Your task to perform on an android device: install app "Gmail" Image 0: 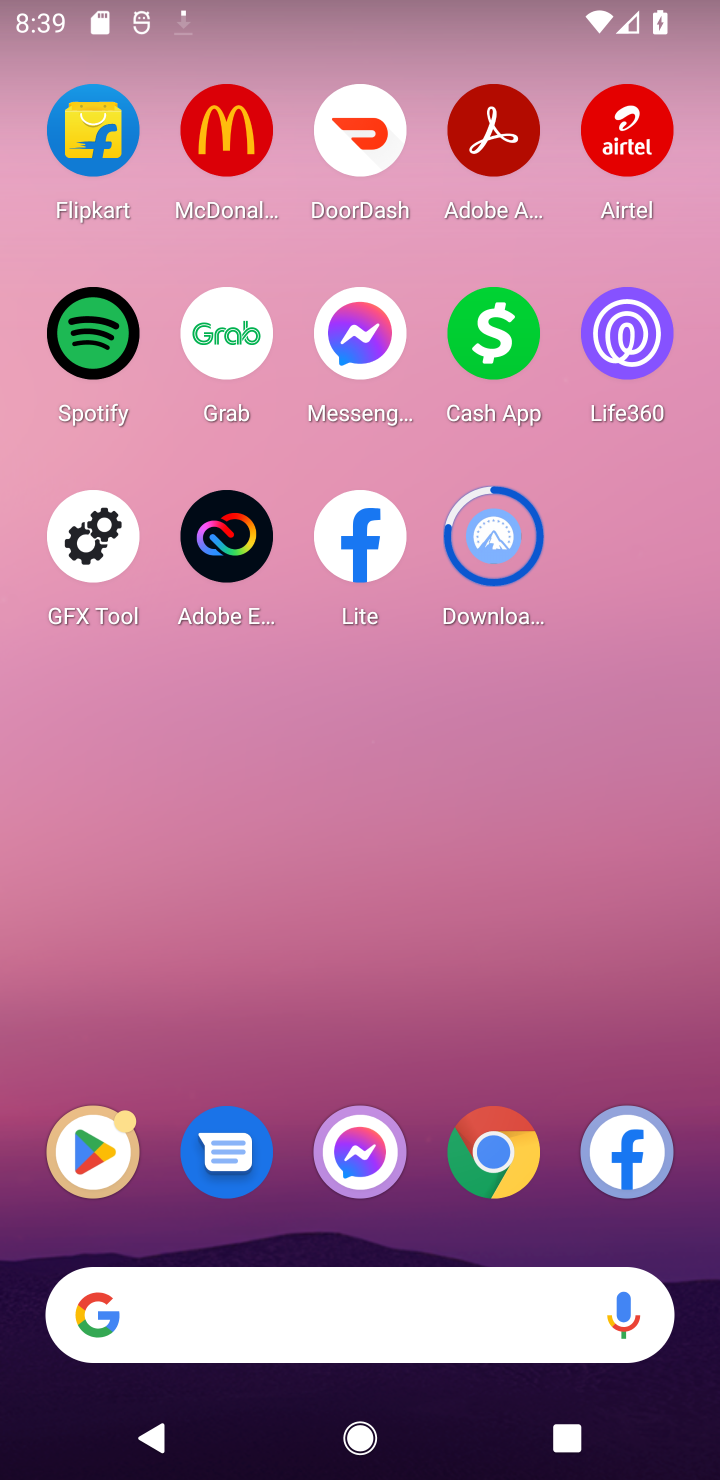
Step 0: click (96, 1157)
Your task to perform on an android device: install app "Gmail" Image 1: 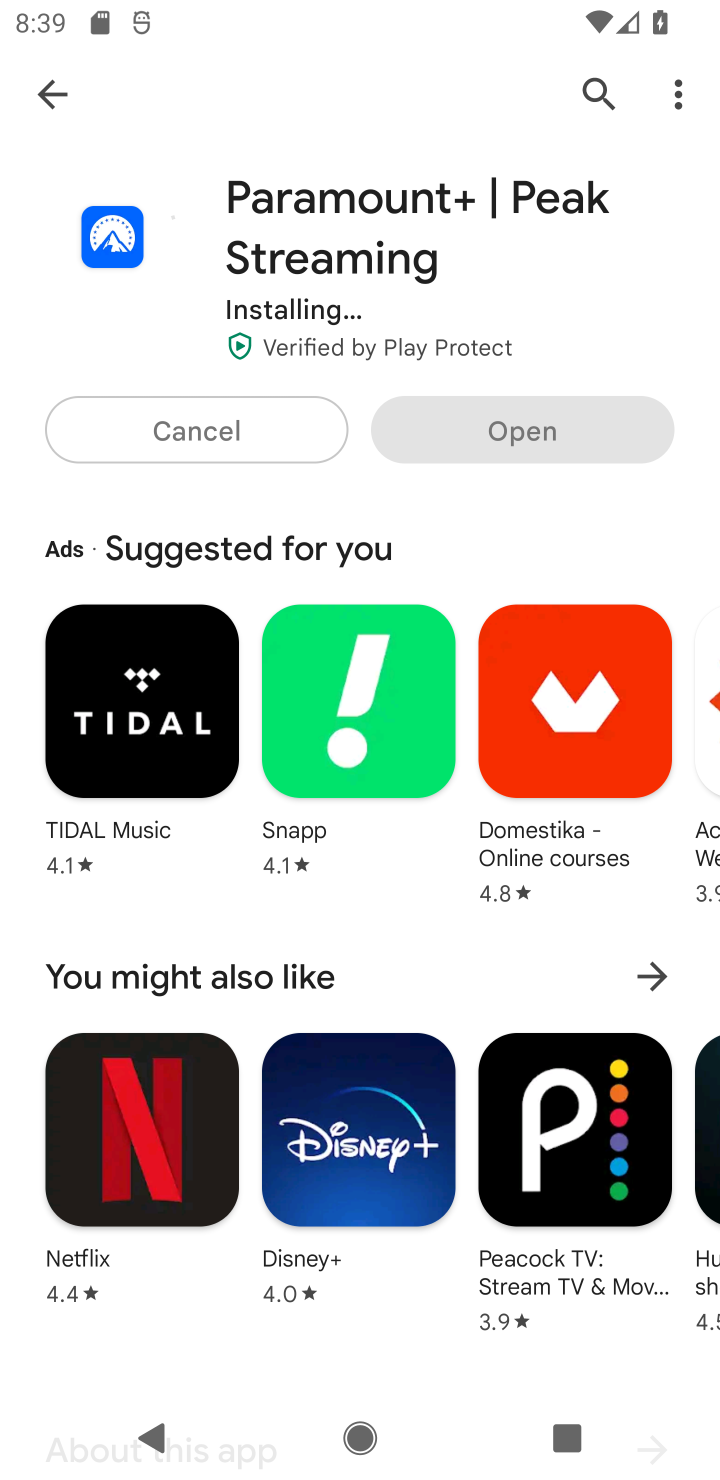
Step 1: click (242, 415)
Your task to perform on an android device: install app "Gmail" Image 2: 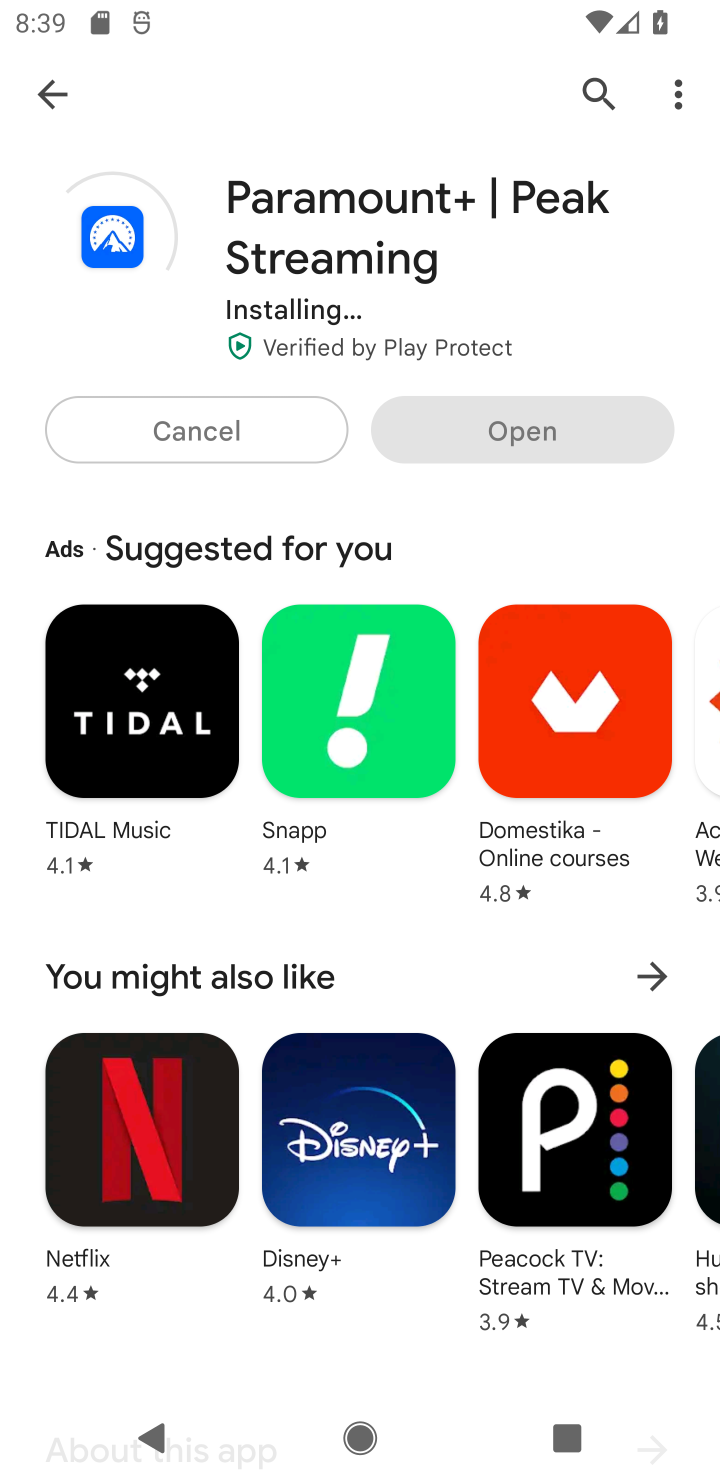
Step 2: click (53, 88)
Your task to perform on an android device: install app "Gmail" Image 3: 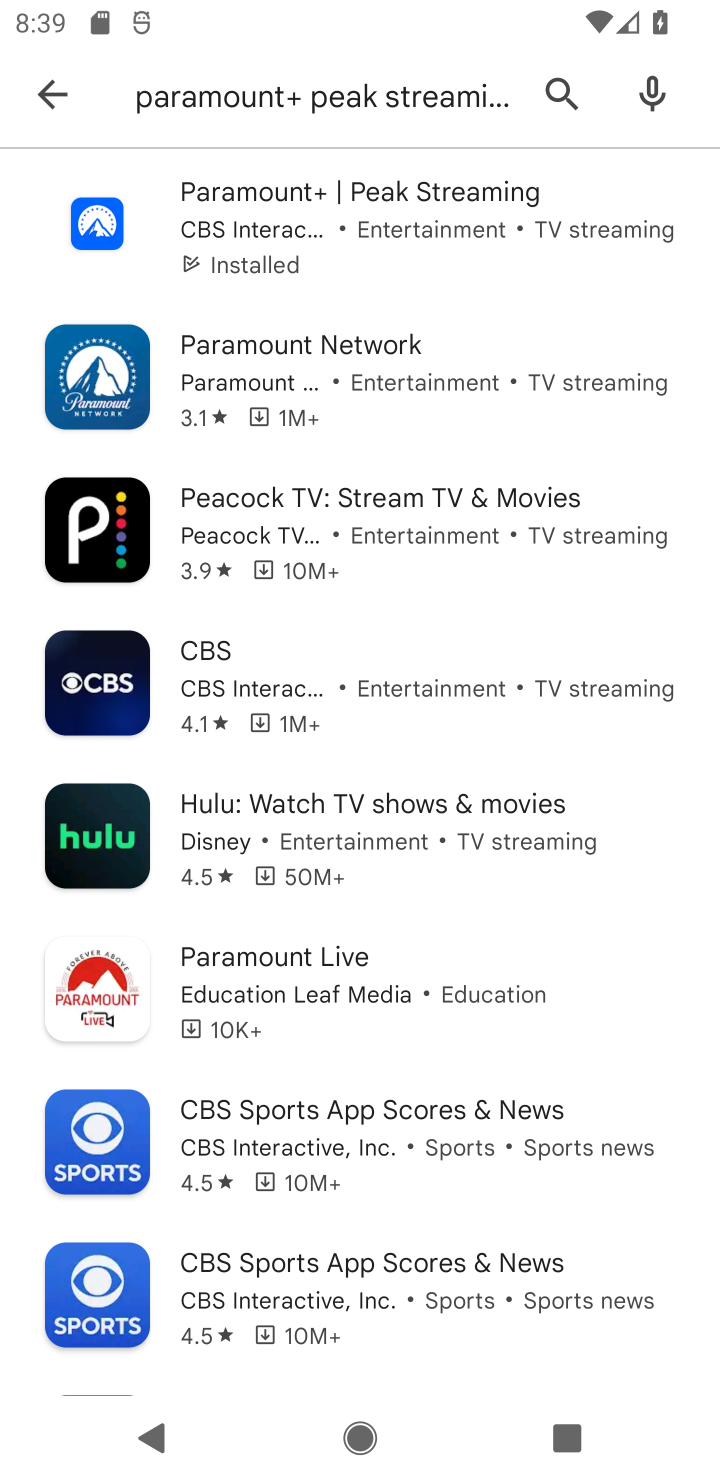
Step 3: click (53, 88)
Your task to perform on an android device: install app "Gmail" Image 4: 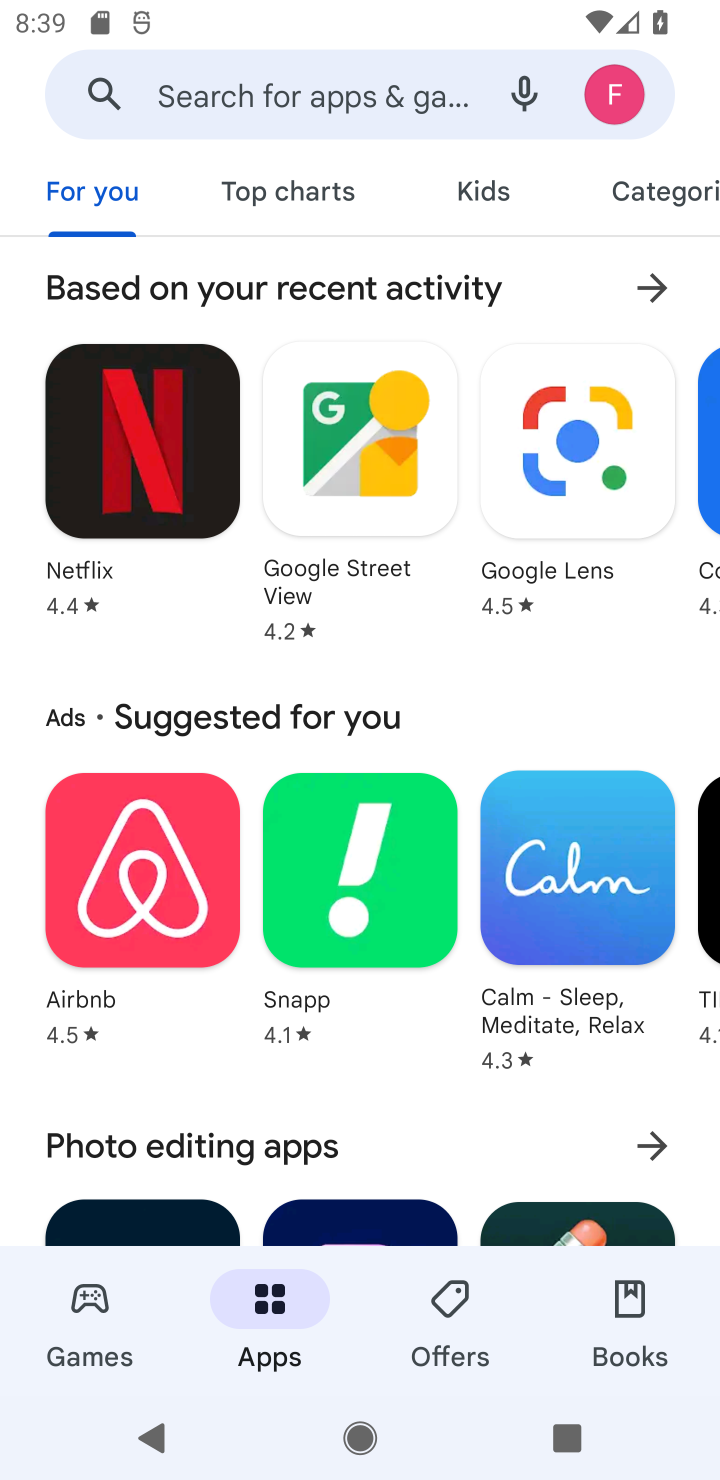
Step 4: click (223, 88)
Your task to perform on an android device: install app "Gmail" Image 5: 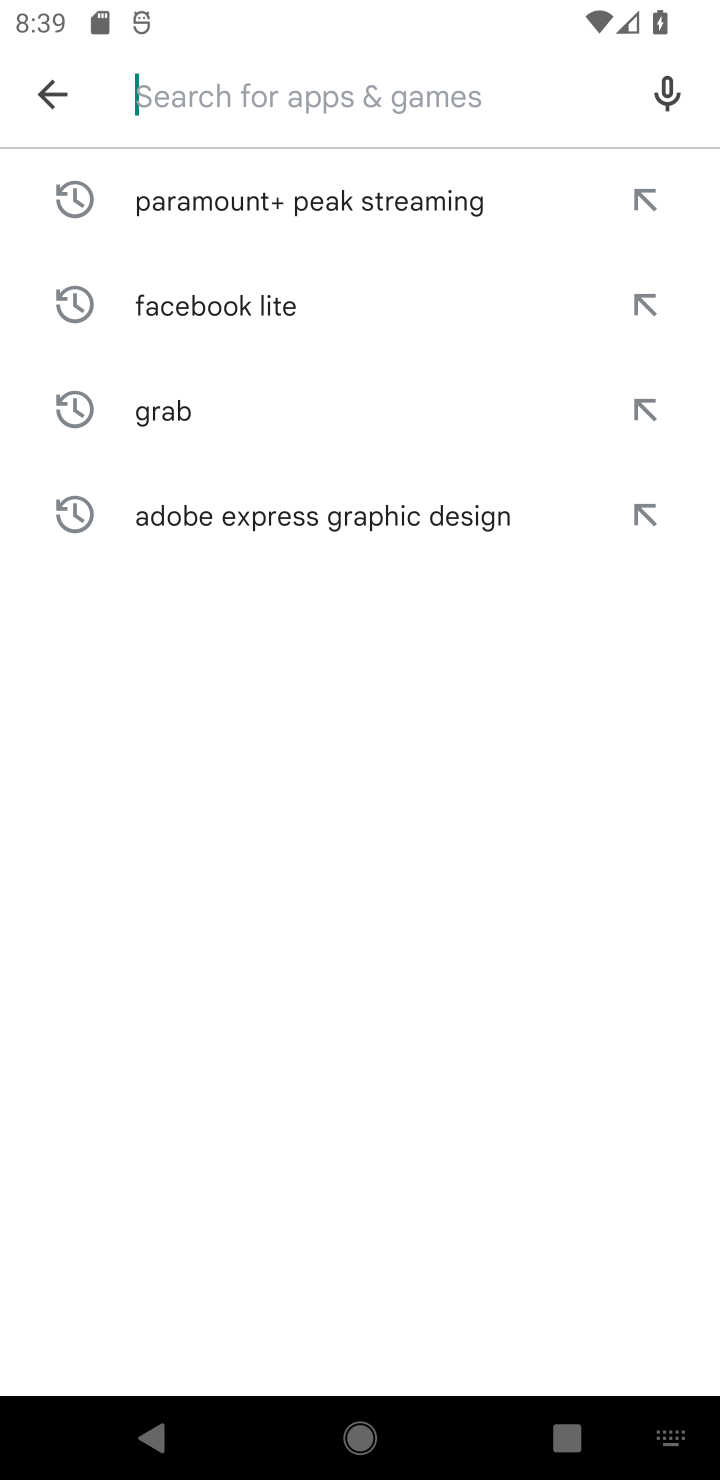
Step 5: type "Gmail"
Your task to perform on an android device: install app "Gmail" Image 6: 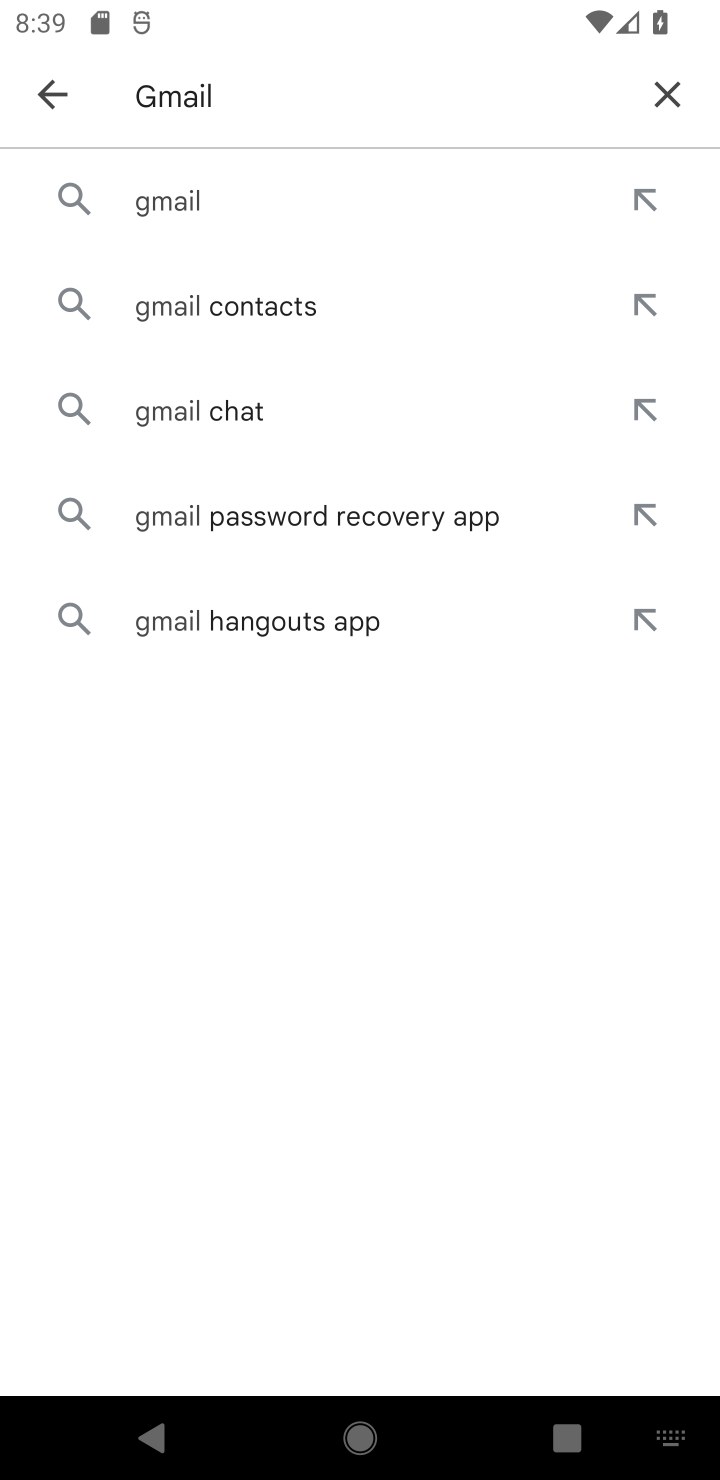
Step 6: click (121, 195)
Your task to perform on an android device: install app "Gmail" Image 7: 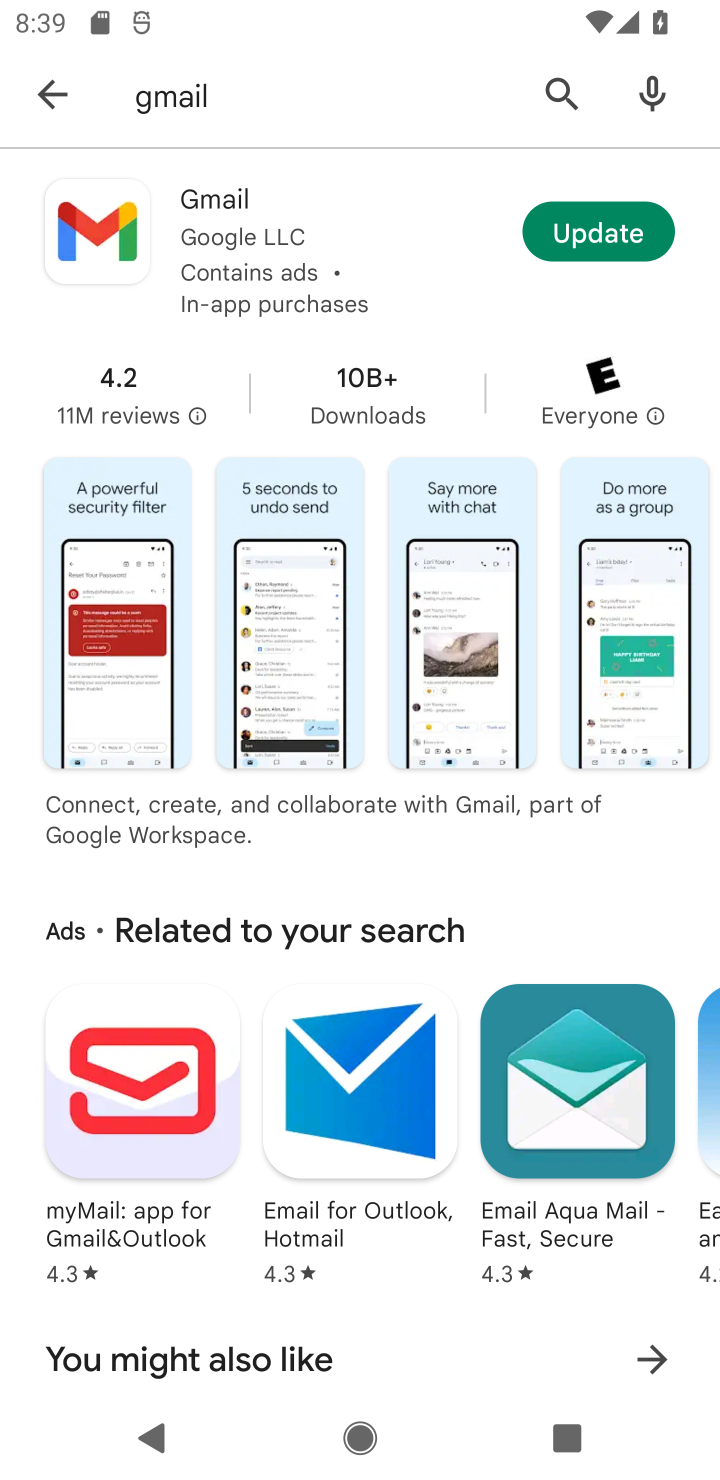
Step 7: task complete